Your task to perform on an android device: Show the shopping cart on walmart.com. Search for "macbook pro" on walmart.com, select the first entry, and add it to the cart. Image 0: 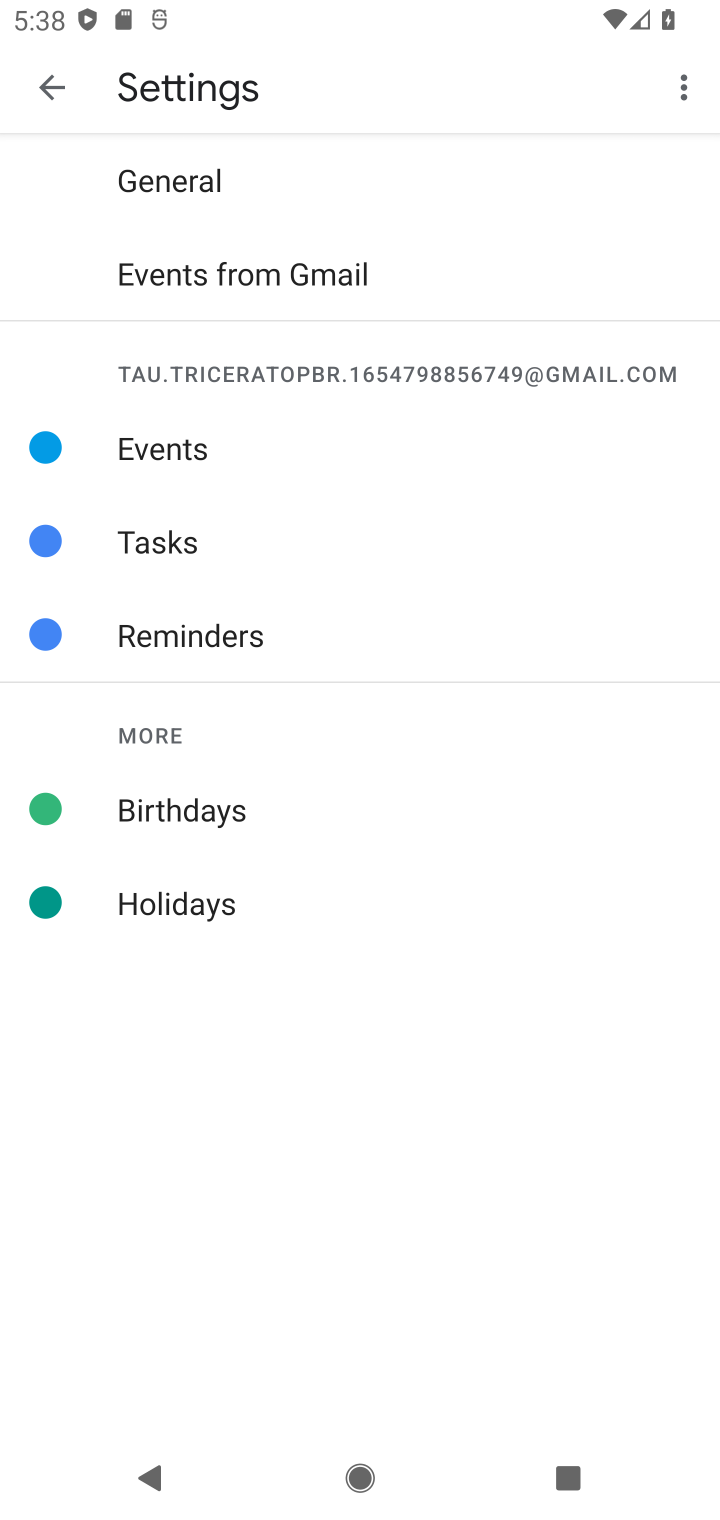
Step 0: press home button
Your task to perform on an android device: Show the shopping cart on walmart.com. Search for "macbook pro" on walmart.com, select the first entry, and add it to the cart. Image 1: 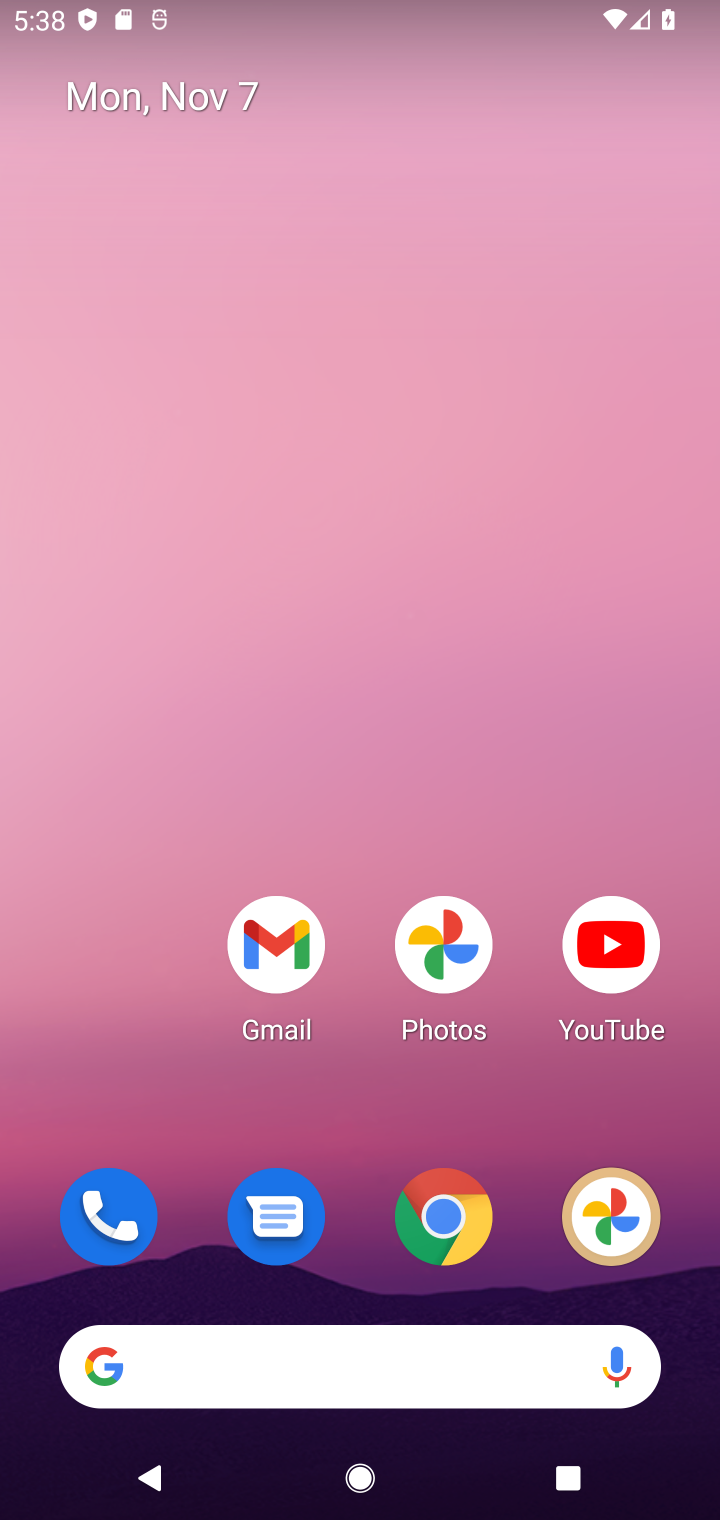
Step 1: drag from (352, 1126) to (466, 3)
Your task to perform on an android device: Show the shopping cart on walmart.com. Search for "macbook pro" on walmart.com, select the first entry, and add it to the cart. Image 2: 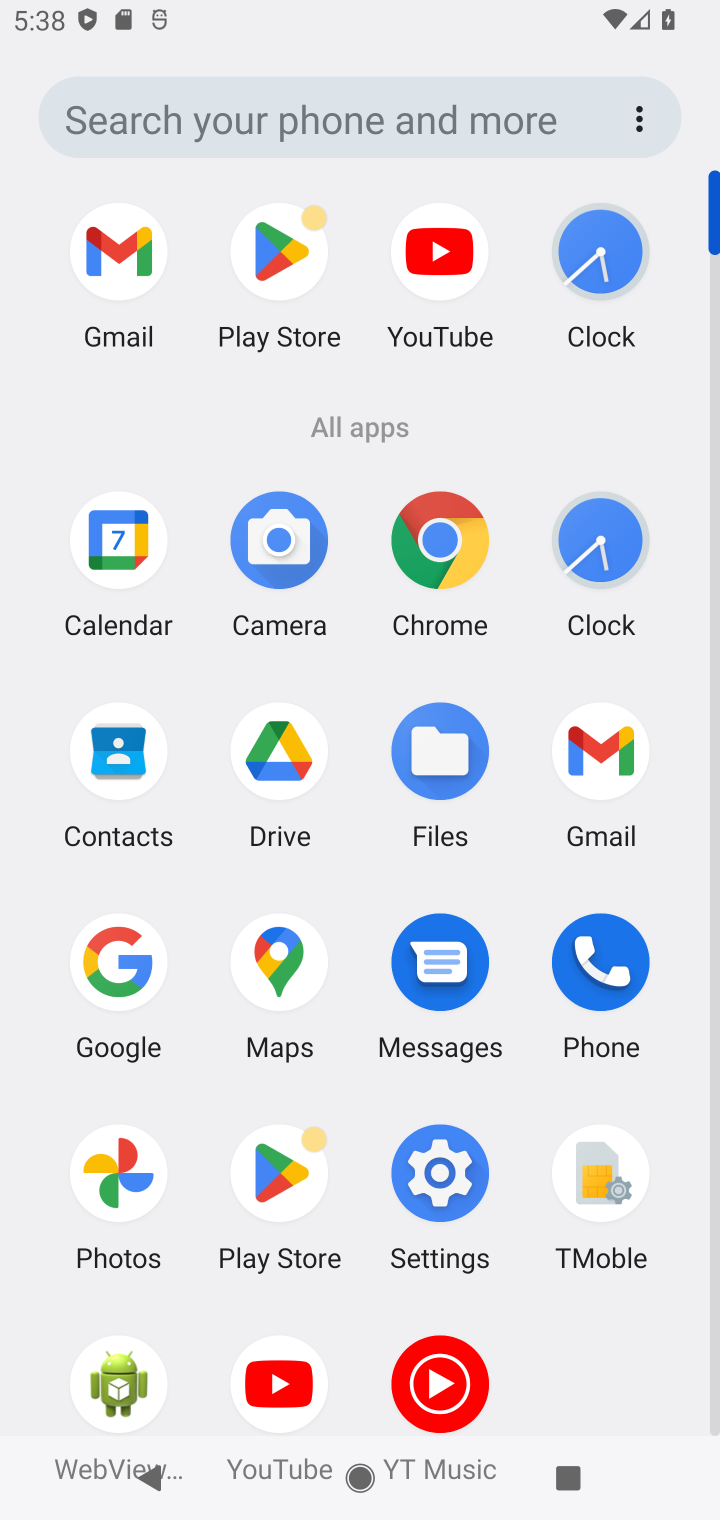
Step 2: click (443, 545)
Your task to perform on an android device: Show the shopping cart on walmart.com. Search for "macbook pro" on walmart.com, select the first entry, and add it to the cart. Image 3: 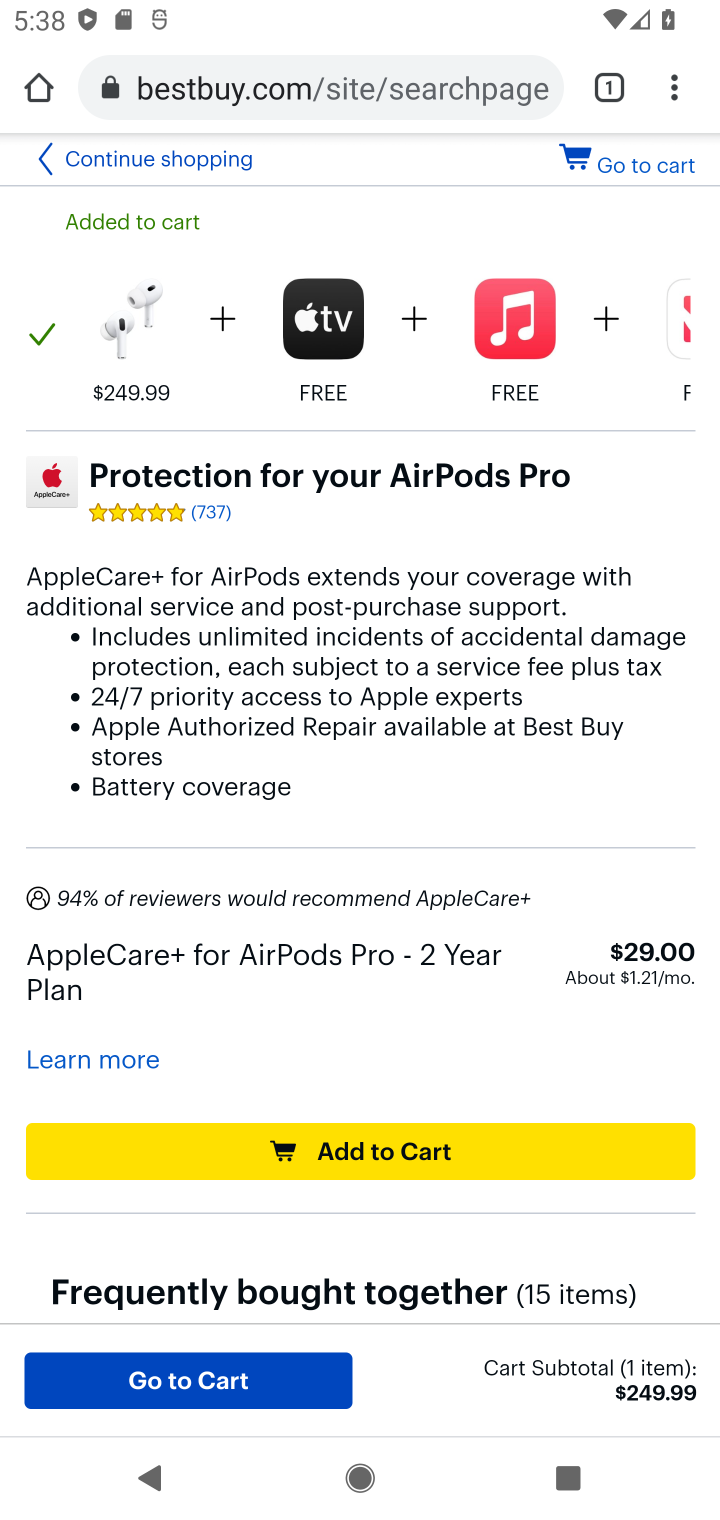
Step 3: click (333, 97)
Your task to perform on an android device: Show the shopping cart on walmart.com. Search for "macbook pro" on walmart.com, select the first entry, and add it to the cart. Image 4: 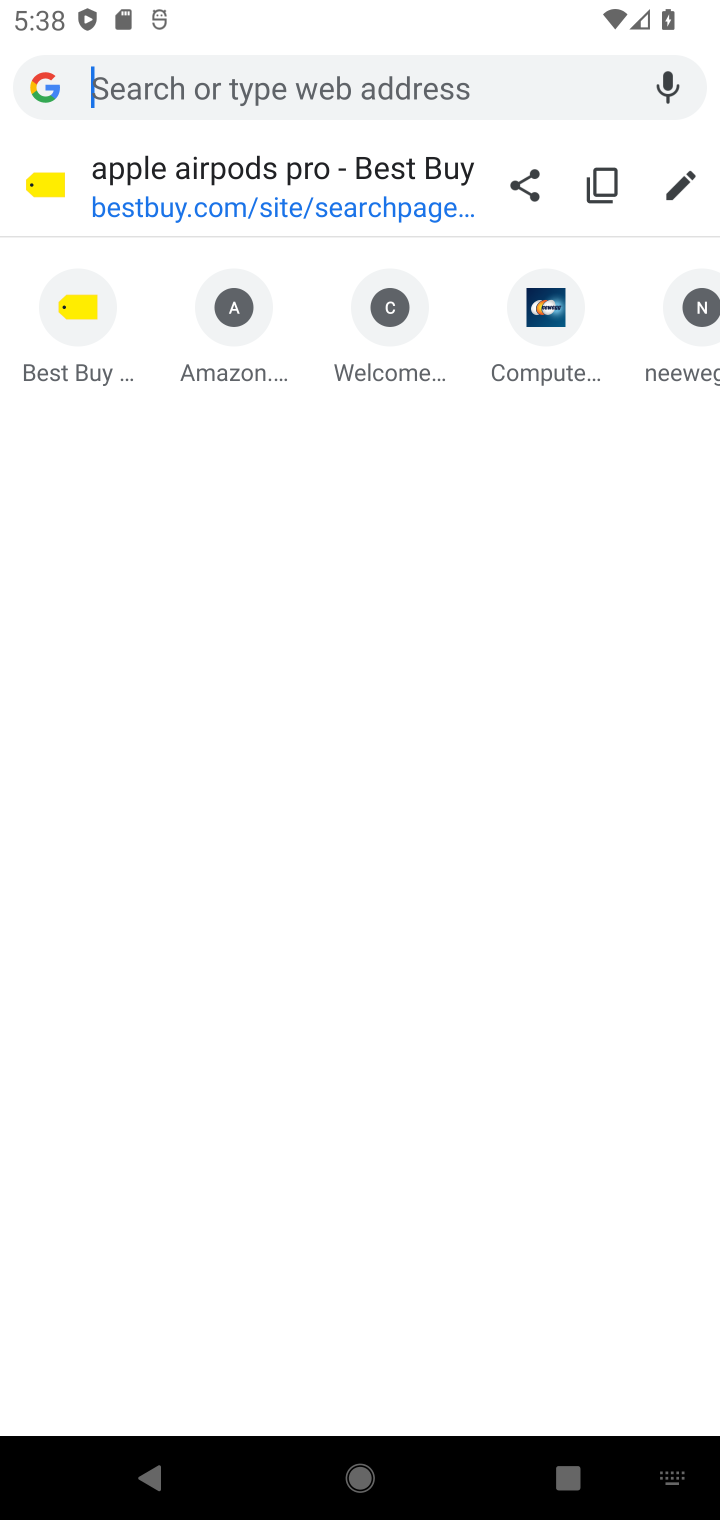
Step 4: type "walmart.com"
Your task to perform on an android device: Show the shopping cart on walmart.com. Search for "macbook pro" on walmart.com, select the first entry, and add it to the cart. Image 5: 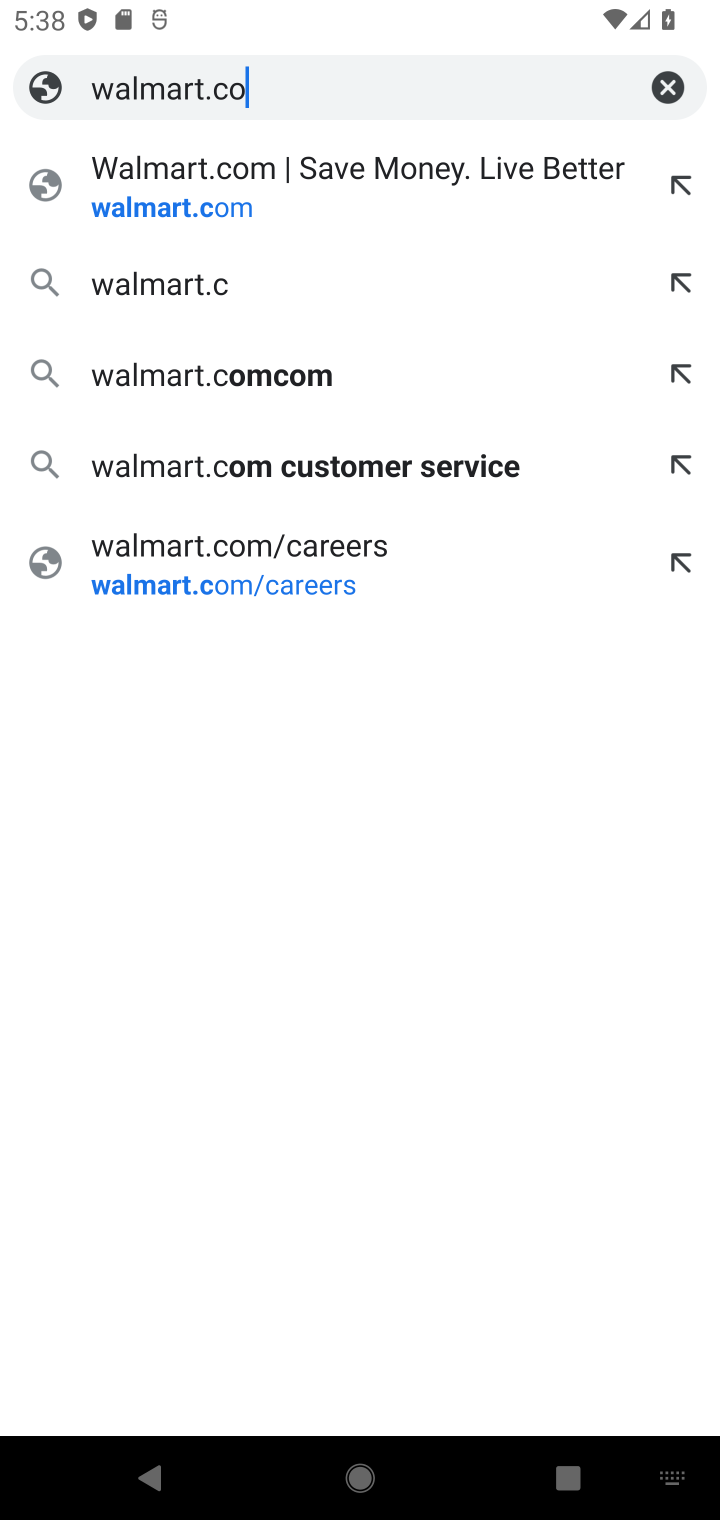
Step 5: press enter
Your task to perform on an android device: Show the shopping cart on walmart.com. Search for "macbook pro" on walmart.com, select the first entry, and add it to the cart. Image 6: 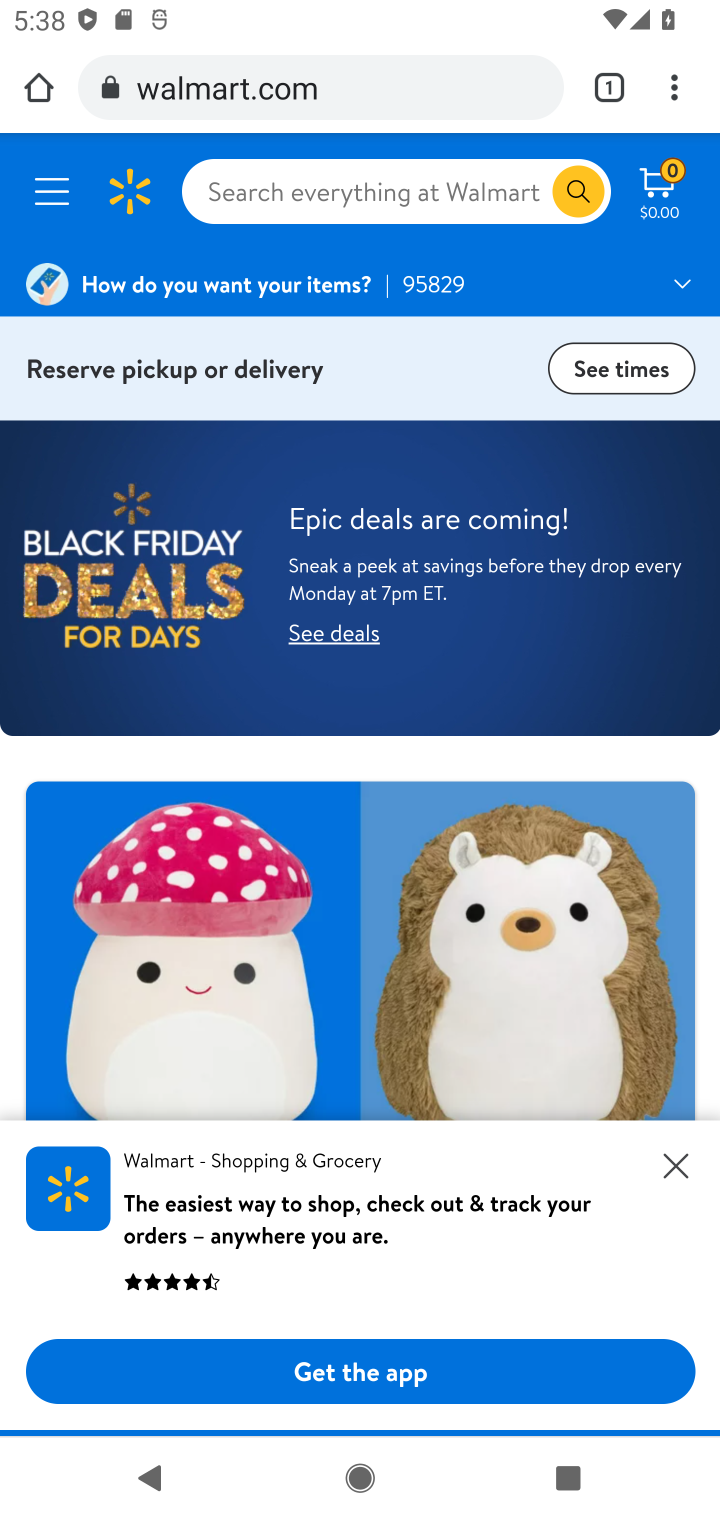
Step 6: click (503, 183)
Your task to perform on an android device: Show the shopping cart on walmart.com. Search for "macbook pro" on walmart.com, select the first entry, and add it to the cart. Image 7: 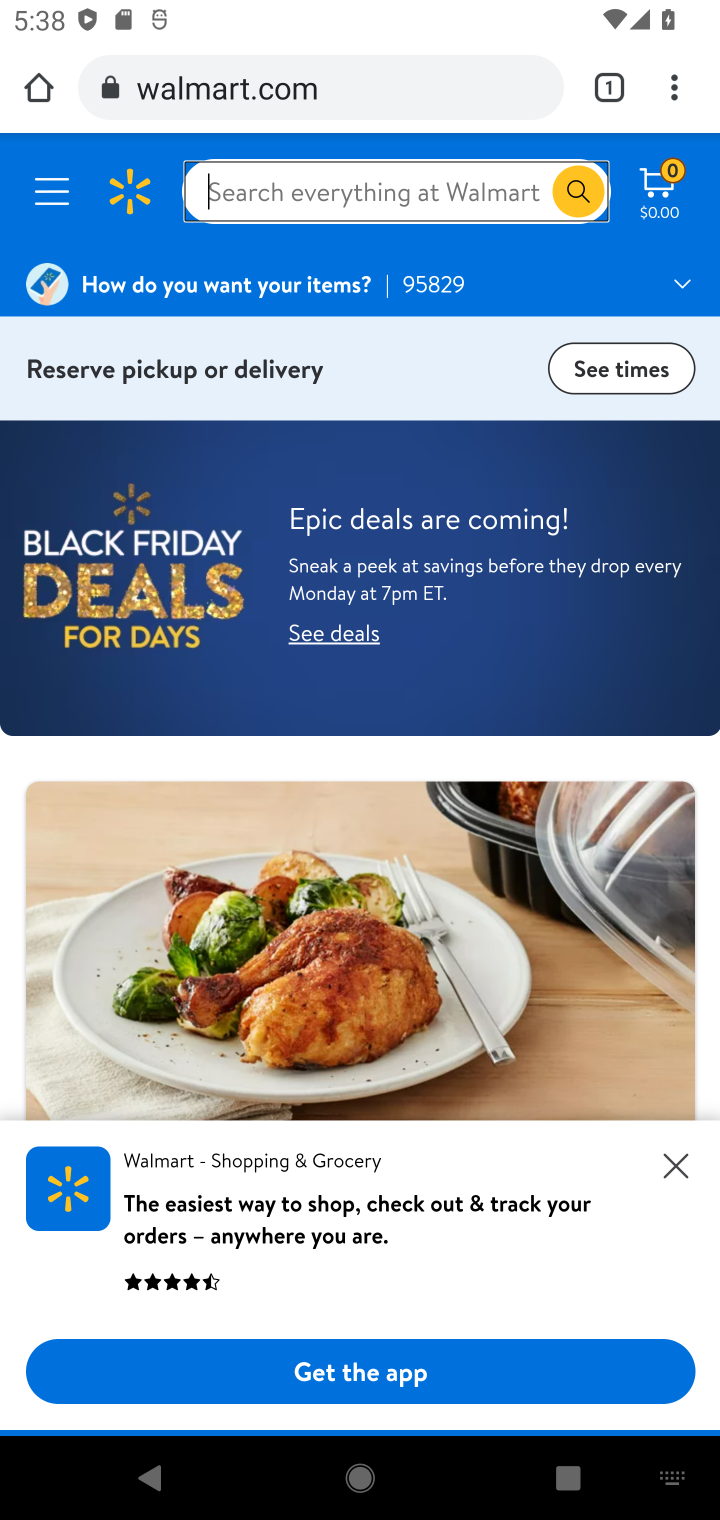
Step 7: type "macbook pro"
Your task to perform on an android device: Show the shopping cart on walmart.com. Search for "macbook pro" on walmart.com, select the first entry, and add it to the cart. Image 8: 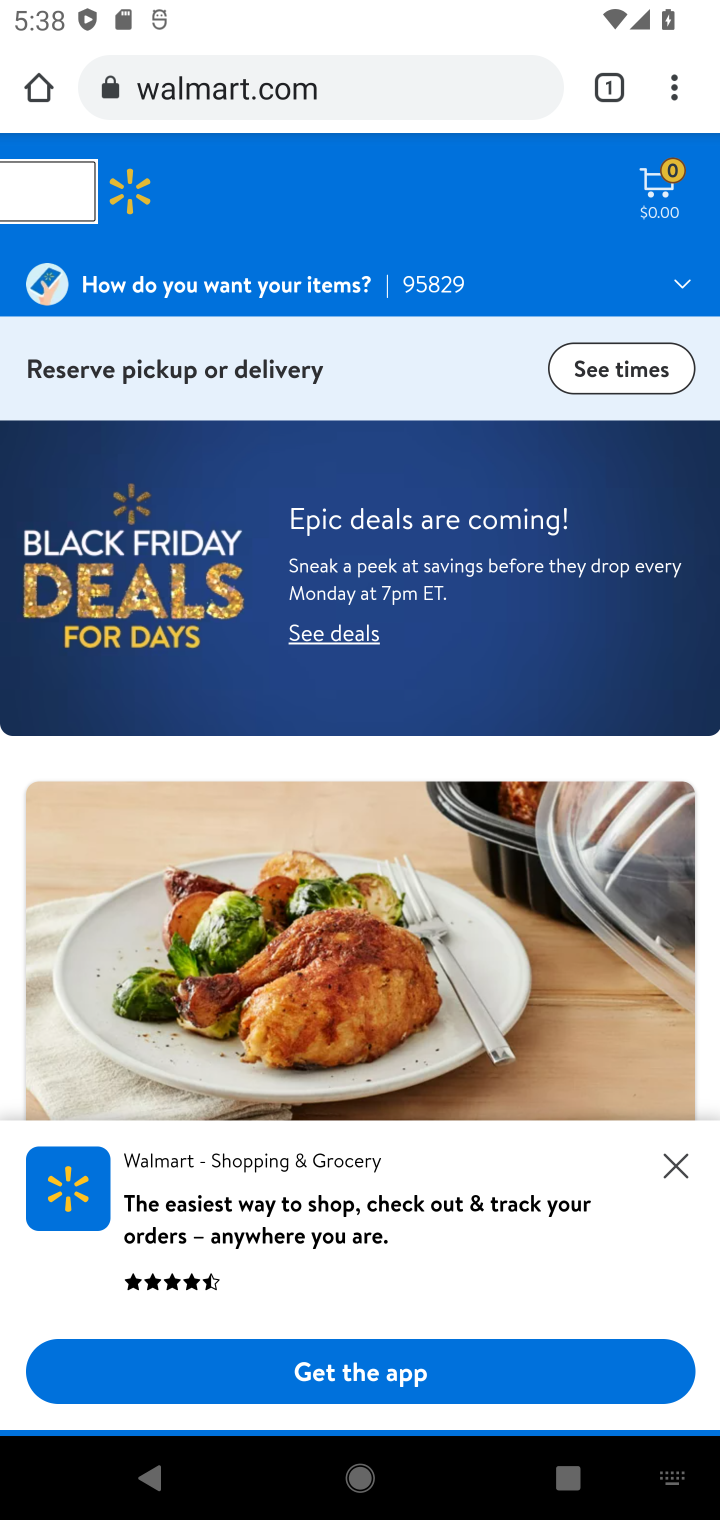
Step 8: press enter
Your task to perform on an android device: Show the shopping cart on walmart.com. Search for "macbook pro" on walmart.com, select the first entry, and add it to the cart. Image 9: 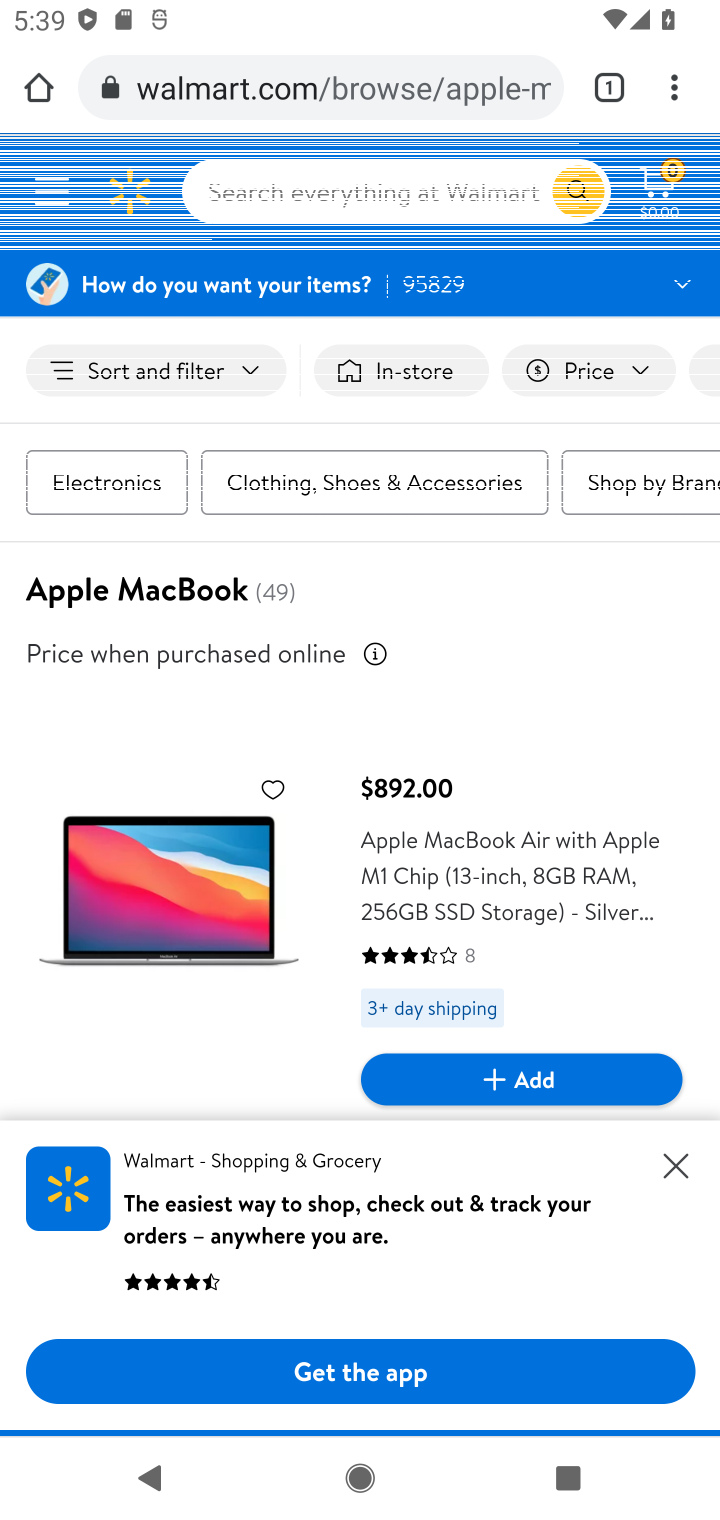
Step 9: drag from (332, 939) to (350, 247)
Your task to perform on an android device: Show the shopping cart on walmart.com. Search for "macbook pro" on walmart.com, select the first entry, and add it to the cart. Image 10: 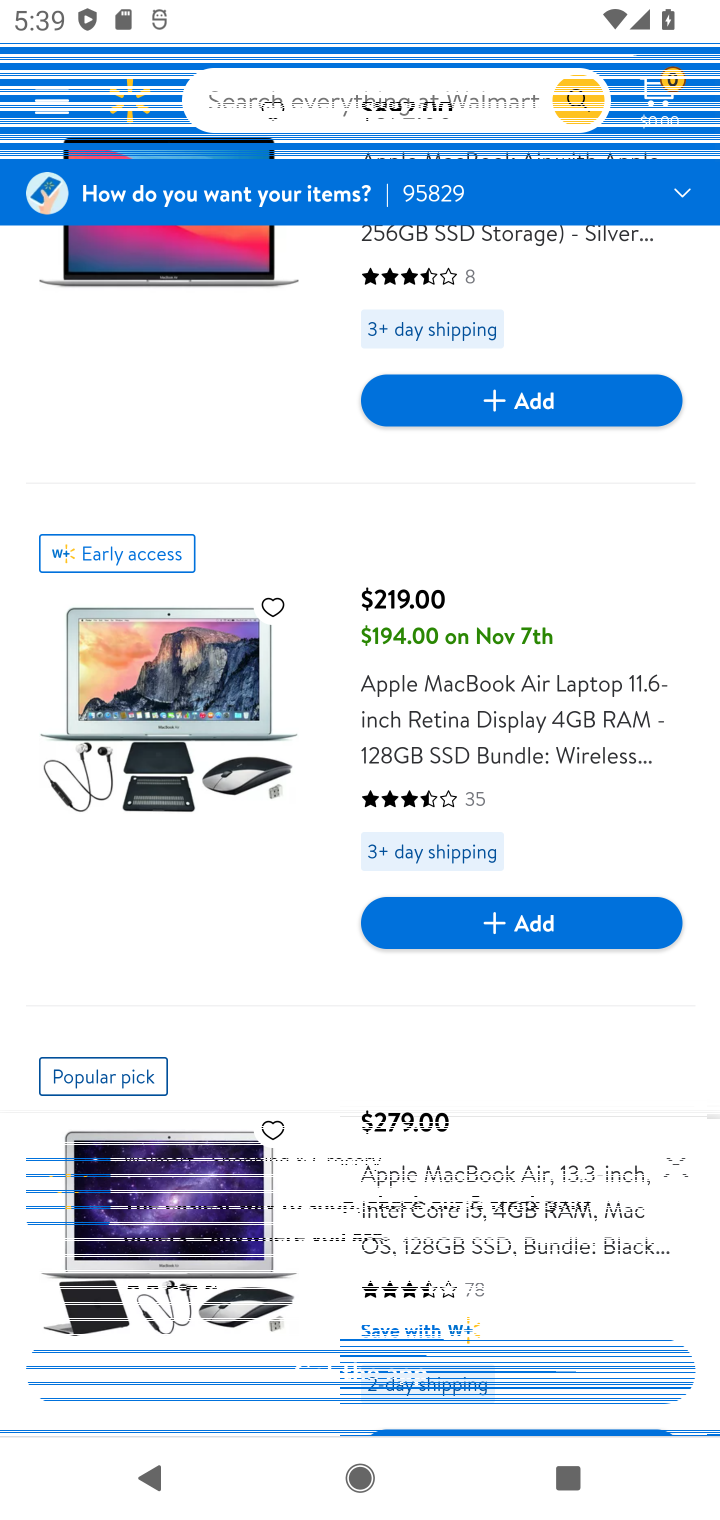
Step 10: drag from (261, 390) to (305, 770)
Your task to perform on an android device: Show the shopping cart on walmart.com. Search for "macbook pro" on walmart.com, select the first entry, and add it to the cart. Image 11: 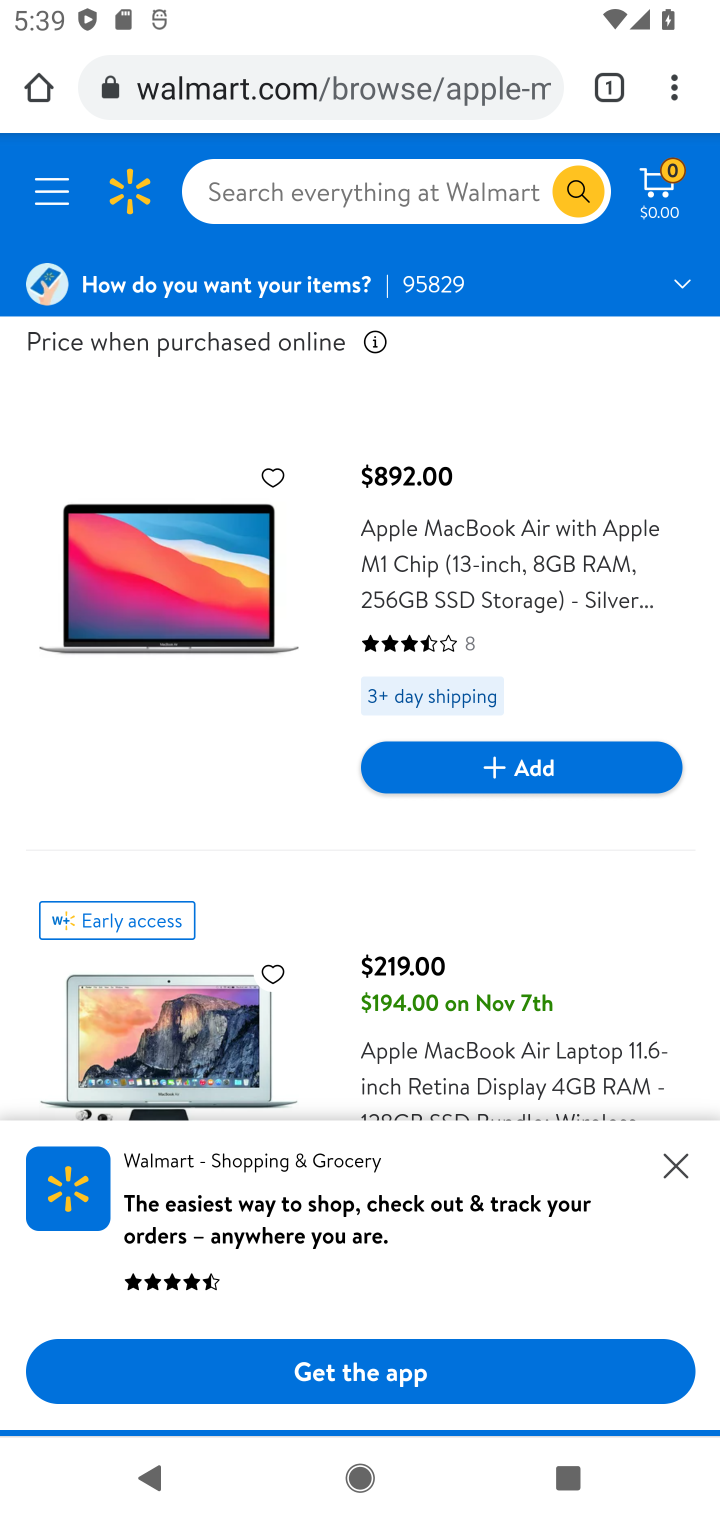
Step 11: click (429, 175)
Your task to perform on an android device: Show the shopping cart on walmart.com. Search for "macbook pro" on walmart.com, select the first entry, and add it to the cart. Image 12: 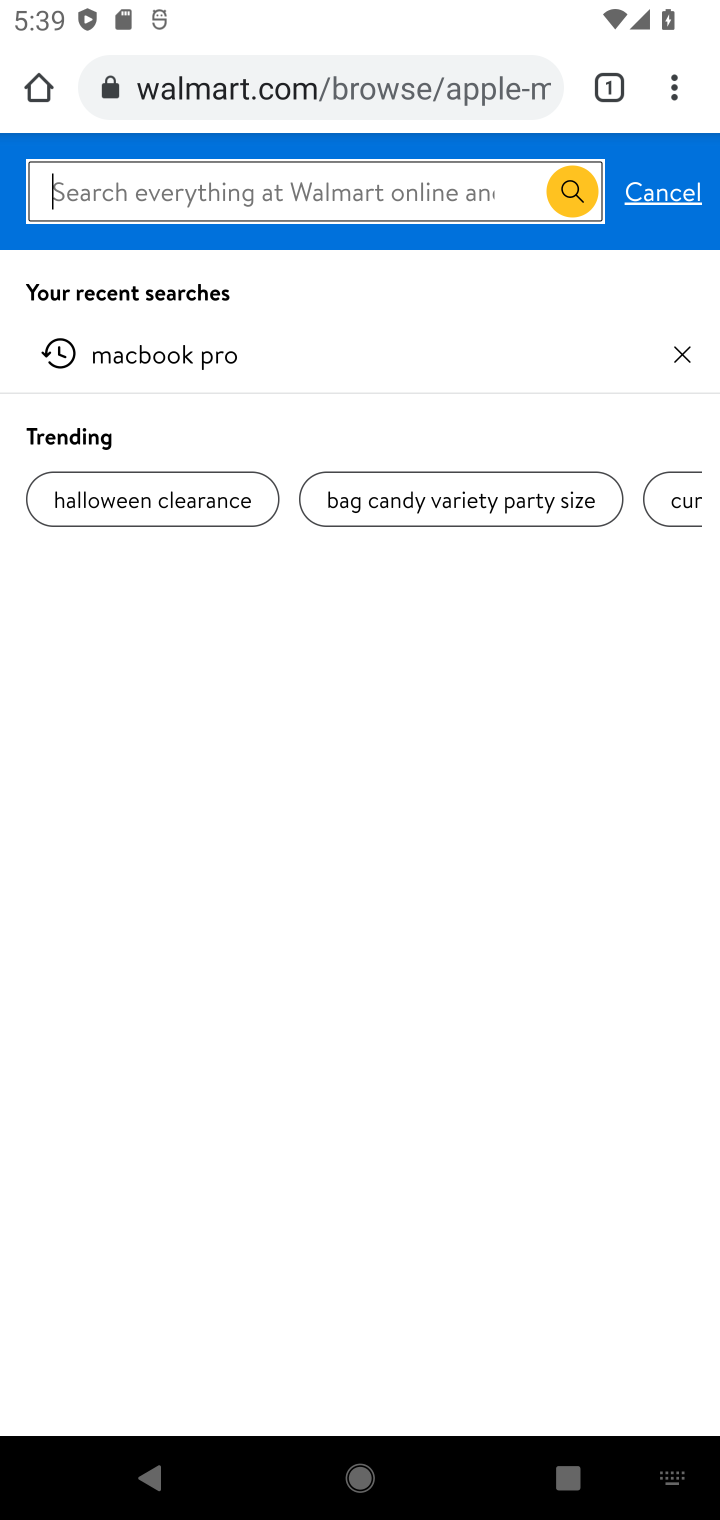
Step 12: type "macbook pro"
Your task to perform on an android device: Show the shopping cart on walmart.com. Search for "macbook pro" on walmart.com, select the first entry, and add it to the cart. Image 13: 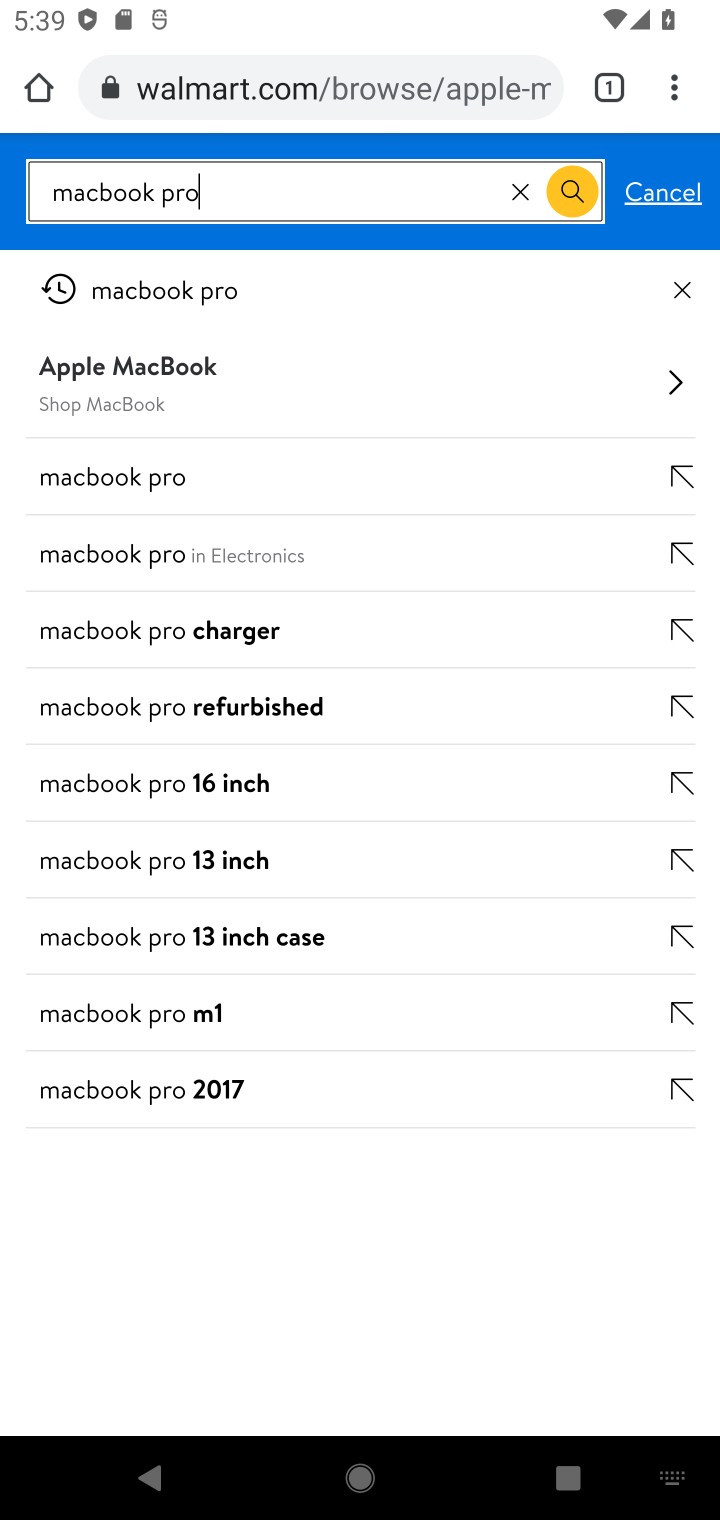
Step 13: press enter
Your task to perform on an android device: Show the shopping cart on walmart.com. Search for "macbook pro" on walmart.com, select the first entry, and add it to the cart. Image 14: 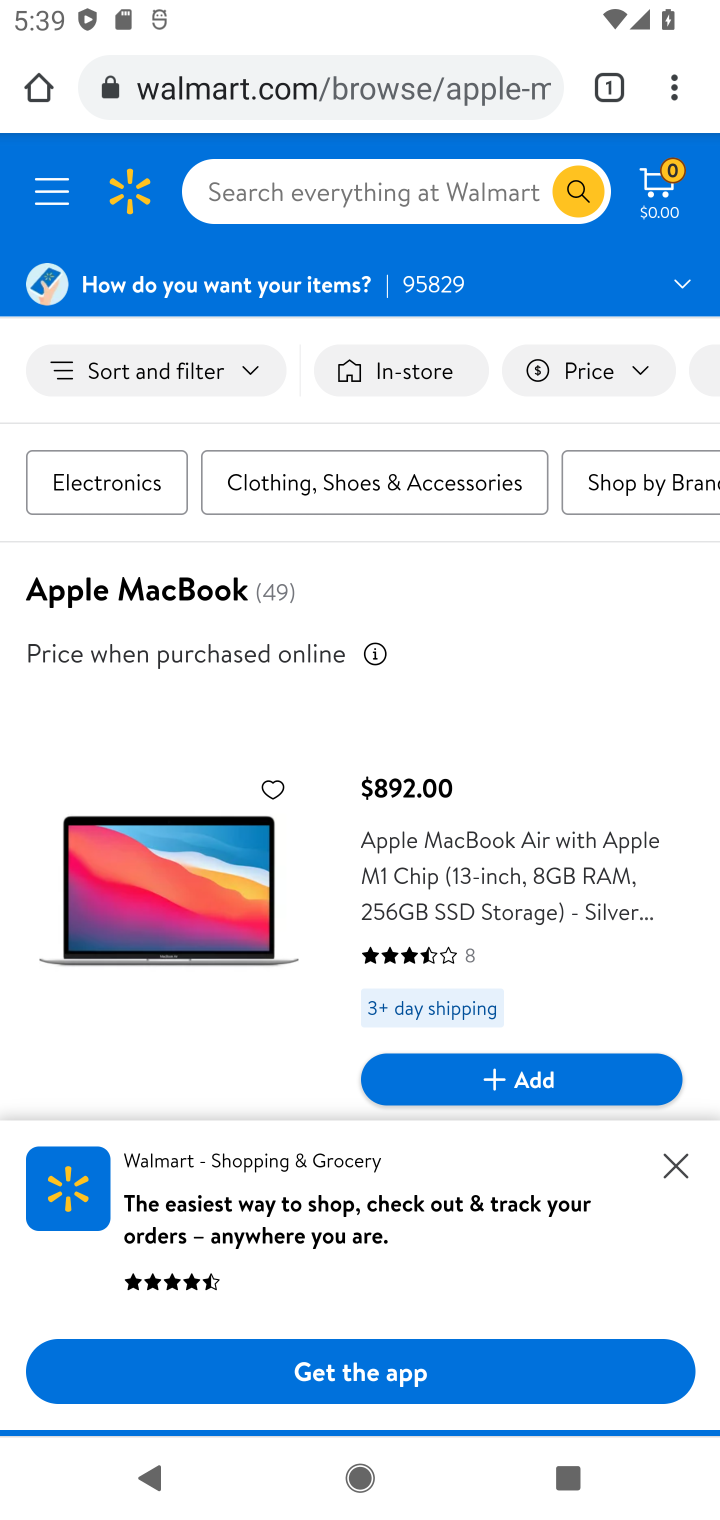
Step 14: task complete